Your task to perform on an android device: turn on notifications settings in the gmail app Image 0: 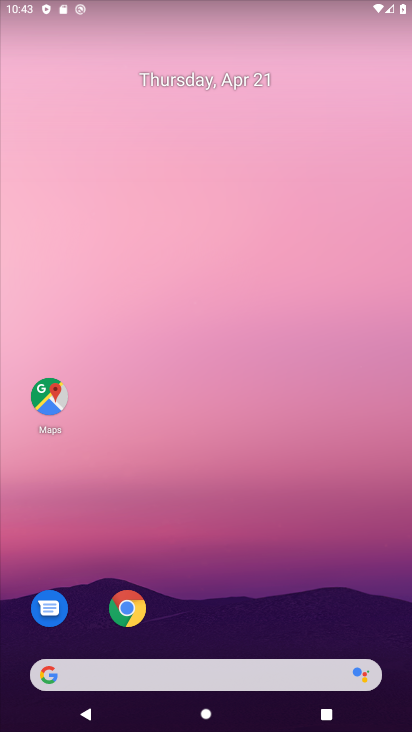
Step 0: drag from (273, 605) to (258, 21)
Your task to perform on an android device: turn on notifications settings in the gmail app Image 1: 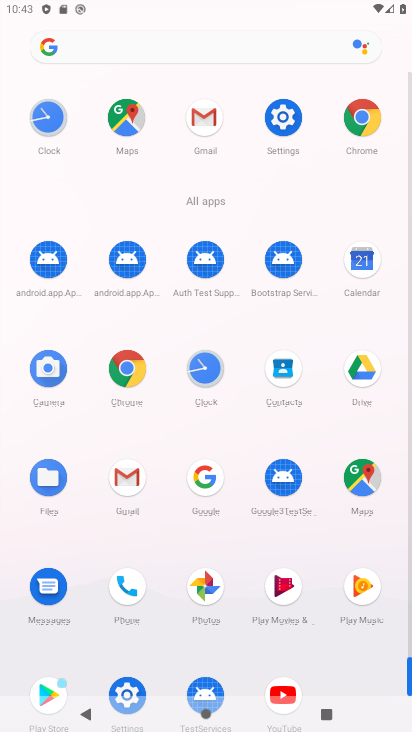
Step 1: click (204, 117)
Your task to perform on an android device: turn on notifications settings in the gmail app Image 2: 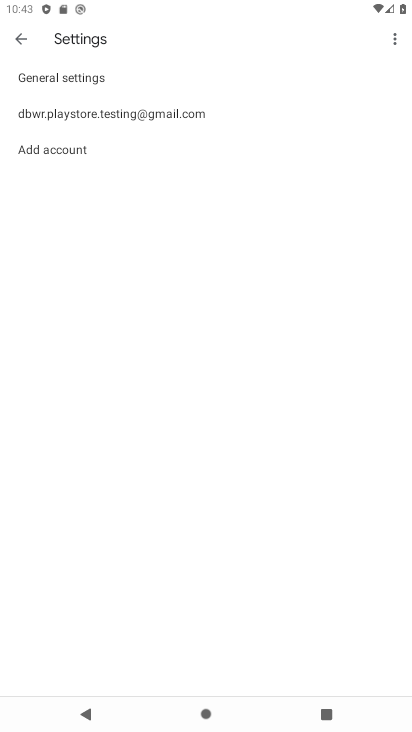
Step 2: click (186, 113)
Your task to perform on an android device: turn on notifications settings in the gmail app Image 3: 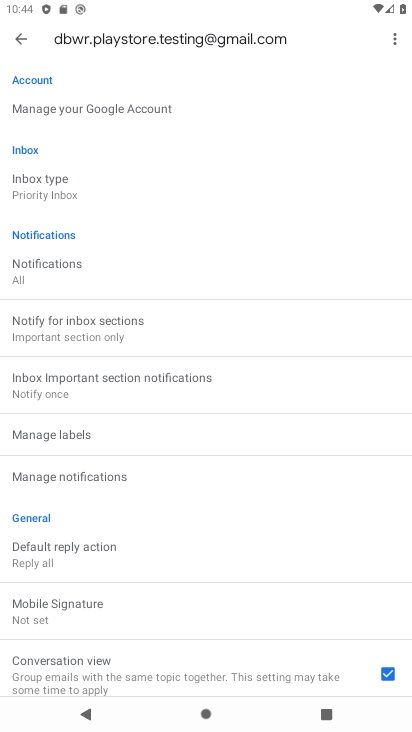
Step 3: click (103, 475)
Your task to perform on an android device: turn on notifications settings in the gmail app Image 4: 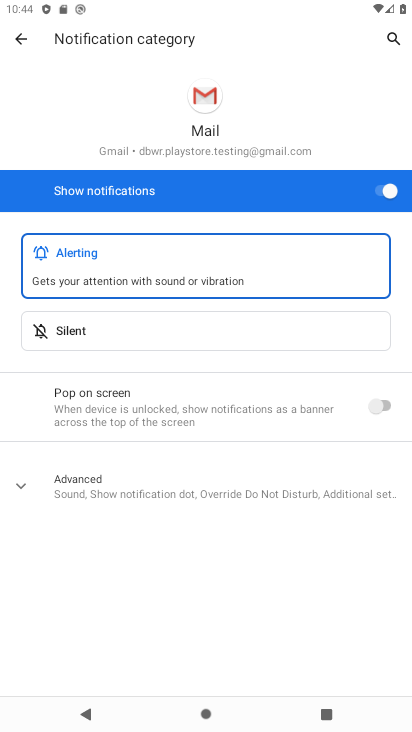
Step 4: task complete